Your task to perform on an android device: Go to Google maps Image 0: 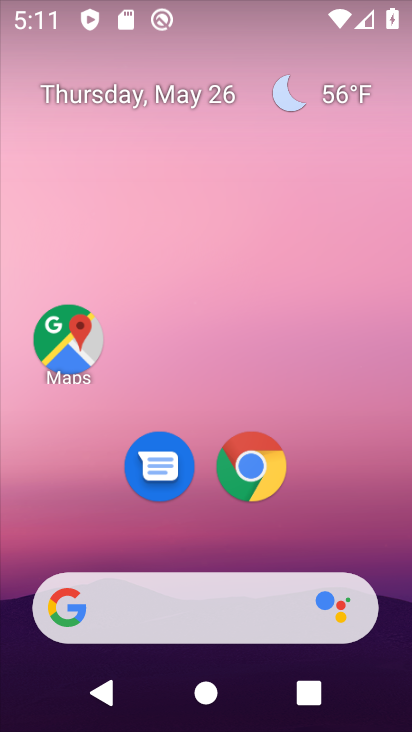
Step 0: drag from (309, 527) to (278, 103)
Your task to perform on an android device: Go to Google maps Image 1: 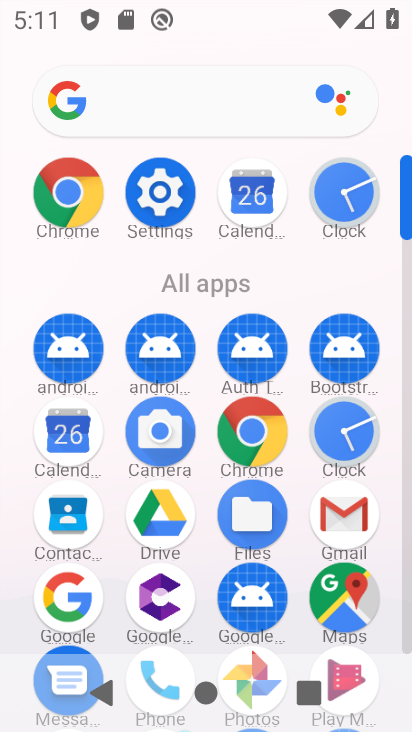
Step 1: click (339, 583)
Your task to perform on an android device: Go to Google maps Image 2: 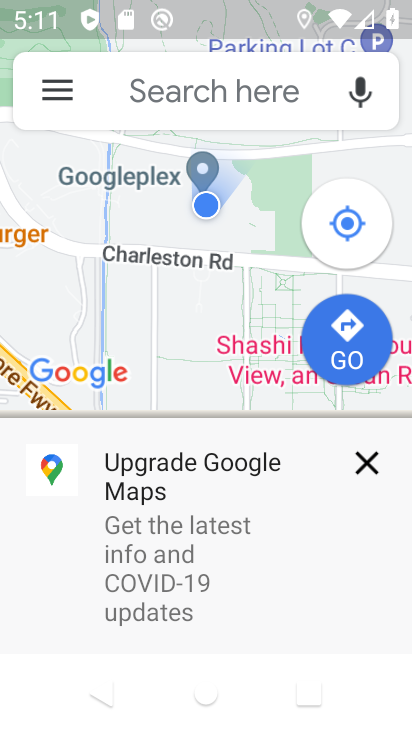
Step 2: task complete